Your task to perform on an android device: Go to sound settings Image 0: 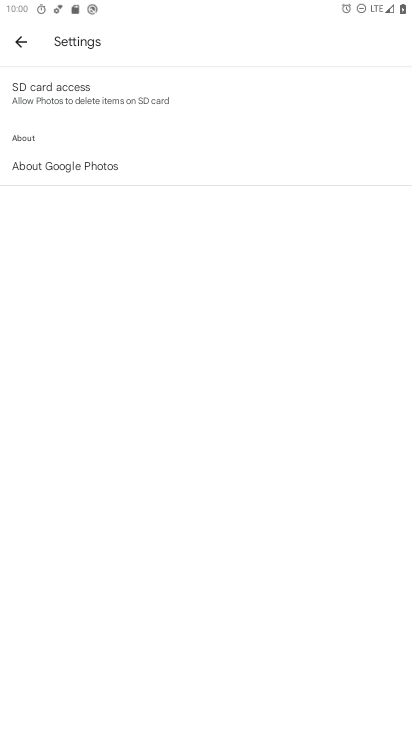
Step 0: press home button
Your task to perform on an android device: Go to sound settings Image 1: 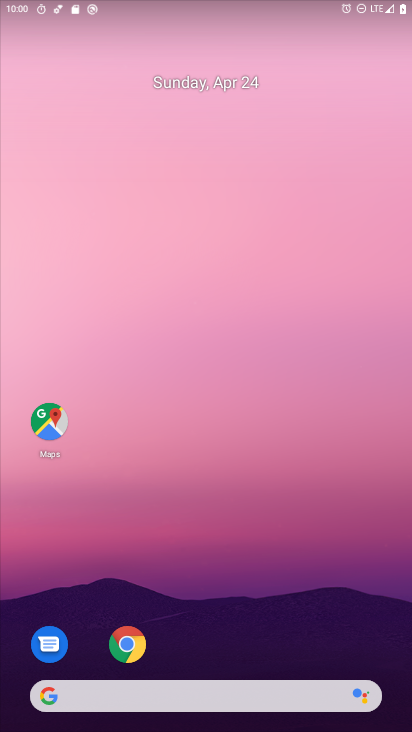
Step 1: drag from (225, 674) to (213, 32)
Your task to perform on an android device: Go to sound settings Image 2: 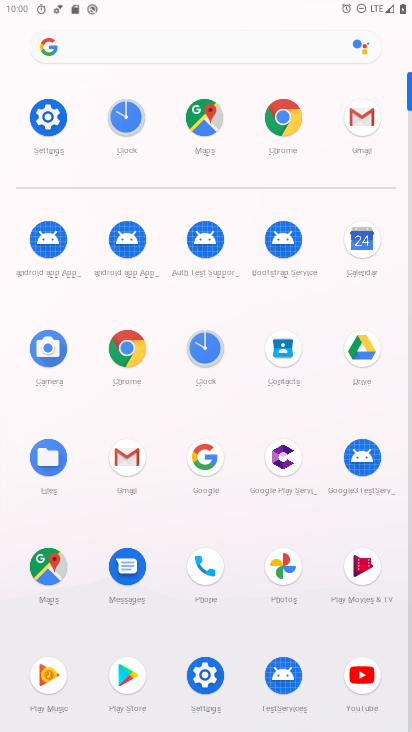
Step 2: click (59, 126)
Your task to perform on an android device: Go to sound settings Image 3: 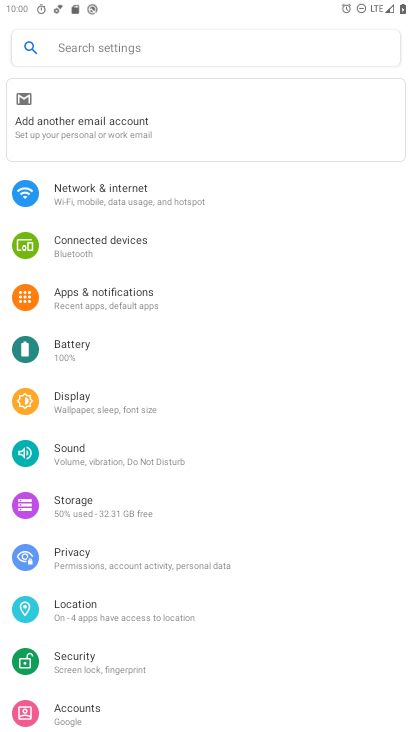
Step 3: click (81, 440)
Your task to perform on an android device: Go to sound settings Image 4: 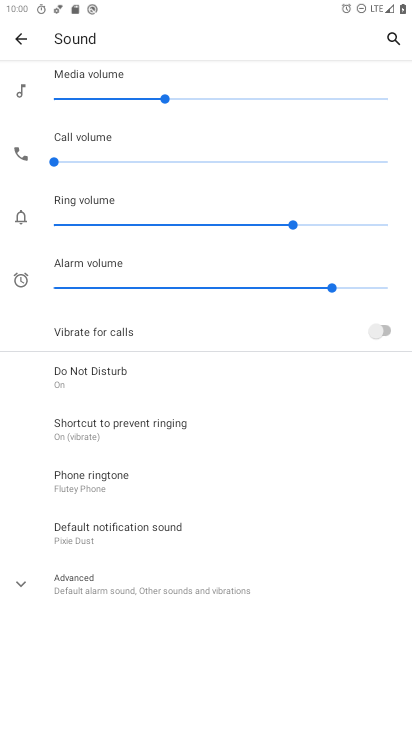
Step 4: task complete